Your task to perform on an android device: toggle improve location accuracy Image 0: 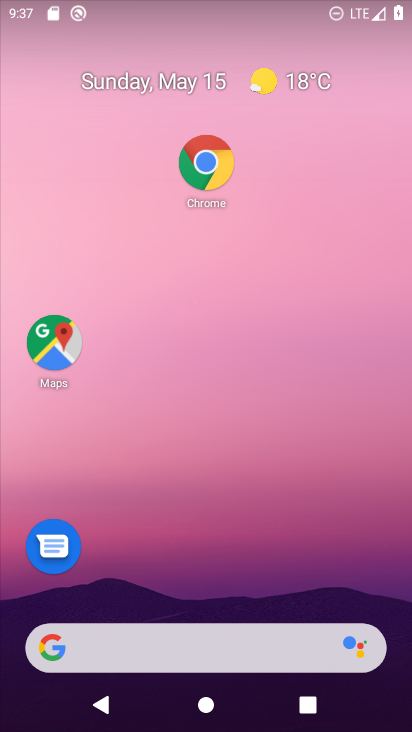
Step 0: drag from (238, 597) to (221, 167)
Your task to perform on an android device: toggle improve location accuracy Image 1: 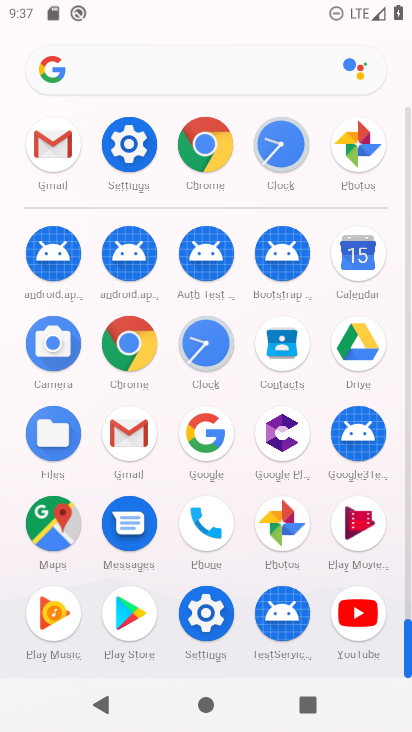
Step 1: click (126, 141)
Your task to perform on an android device: toggle improve location accuracy Image 2: 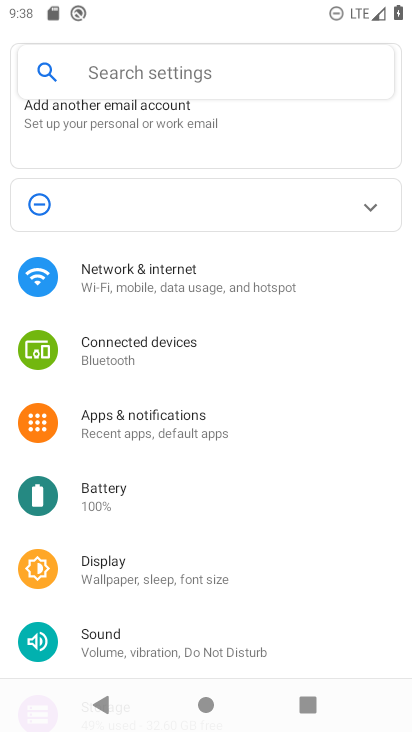
Step 2: drag from (128, 555) to (142, 245)
Your task to perform on an android device: toggle improve location accuracy Image 3: 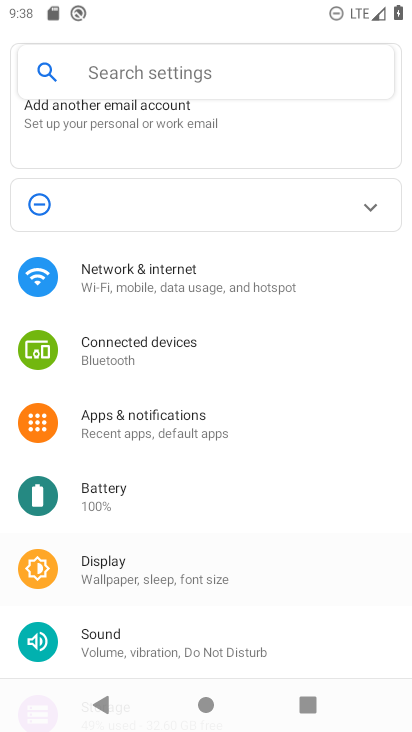
Step 3: drag from (189, 568) to (215, 192)
Your task to perform on an android device: toggle improve location accuracy Image 4: 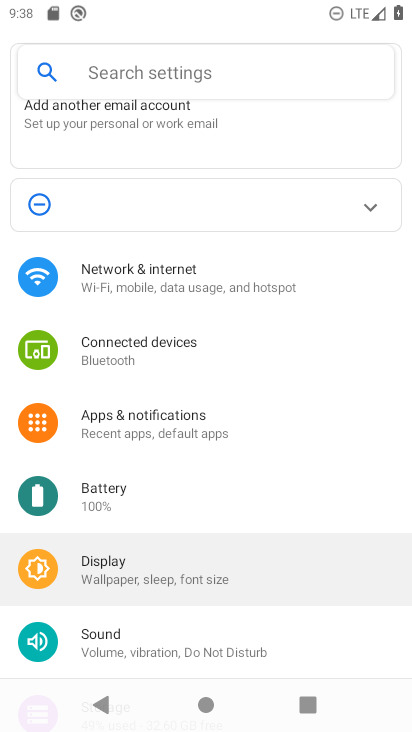
Step 4: drag from (221, 432) to (223, 283)
Your task to perform on an android device: toggle improve location accuracy Image 5: 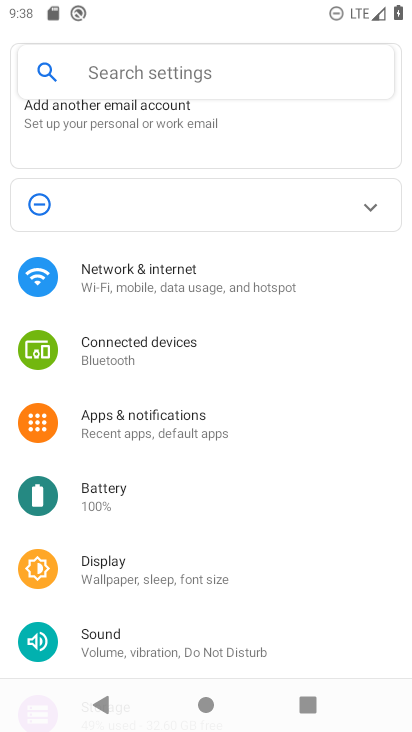
Step 5: drag from (236, 540) to (233, 311)
Your task to perform on an android device: toggle improve location accuracy Image 6: 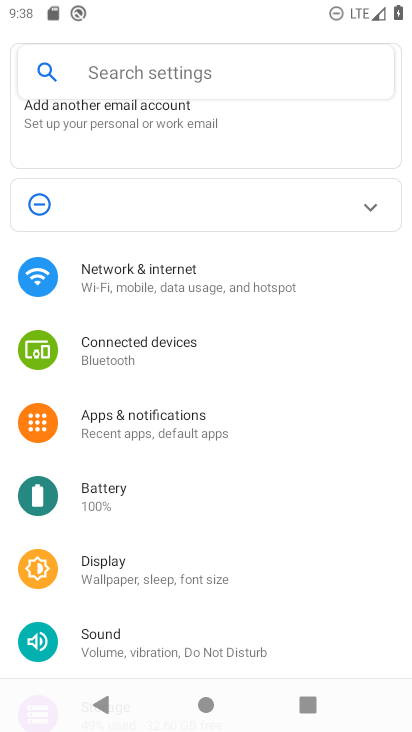
Step 6: drag from (231, 560) to (218, 281)
Your task to perform on an android device: toggle improve location accuracy Image 7: 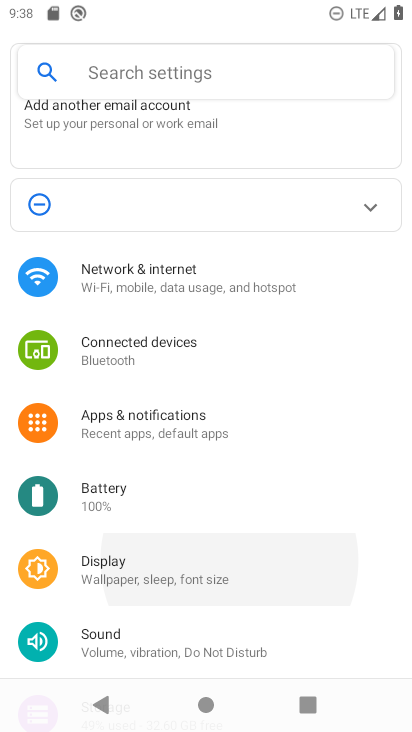
Step 7: drag from (197, 516) to (182, 294)
Your task to perform on an android device: toggle improve location accuracy Image 8: 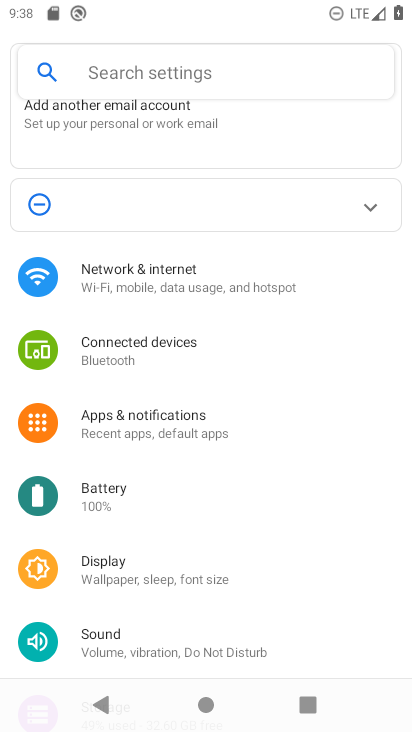
Step 8: drag from (166, 372) to (171, 277)
Your task to perform on an android device: toggle improve location accuracy Image 9: 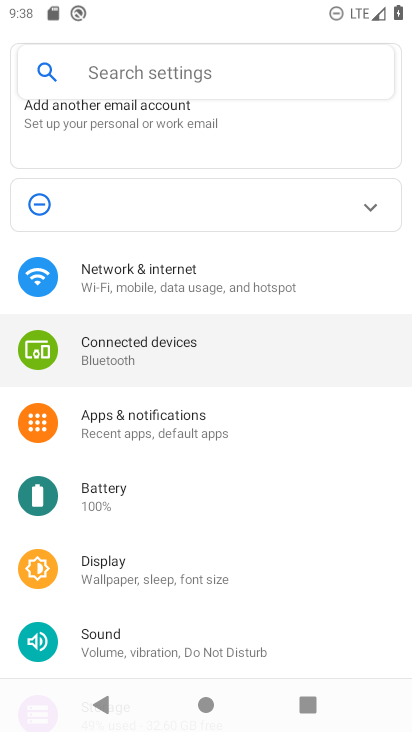
Step 9: drag from (171, 488) to (172, 276)
Your task to perform on an android device: toggle improve location accuracy Image 10: 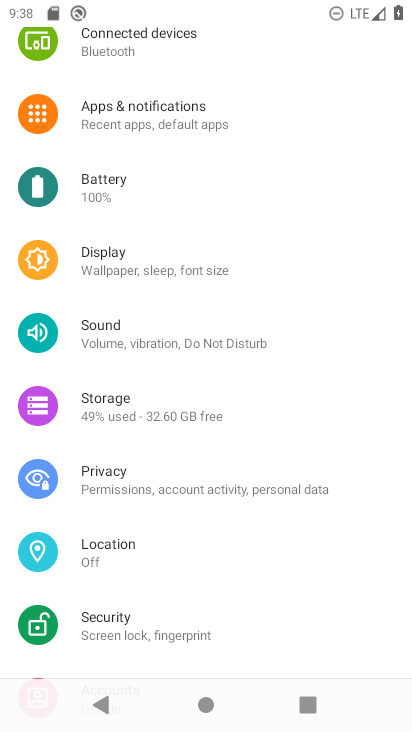
Step 10: drag from (227, 444) to (227, 320)
Your task to perform on an android device: toggle improve location accuracy Image 11: 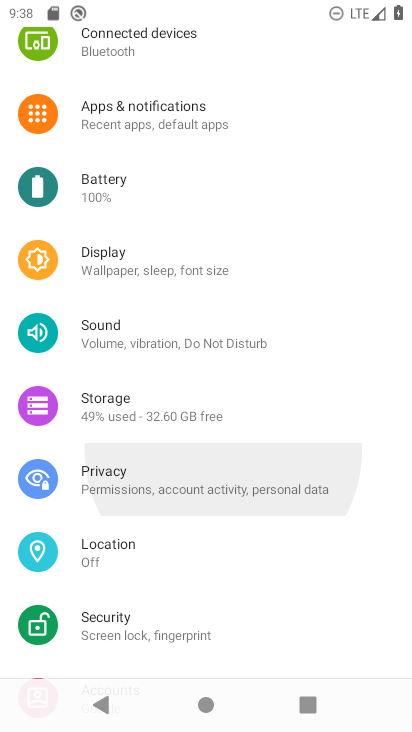
Step 11: drag from (278, 484) to (262, 402)
Your task to perform on an android device: toggle improve location accuracy Image 12: 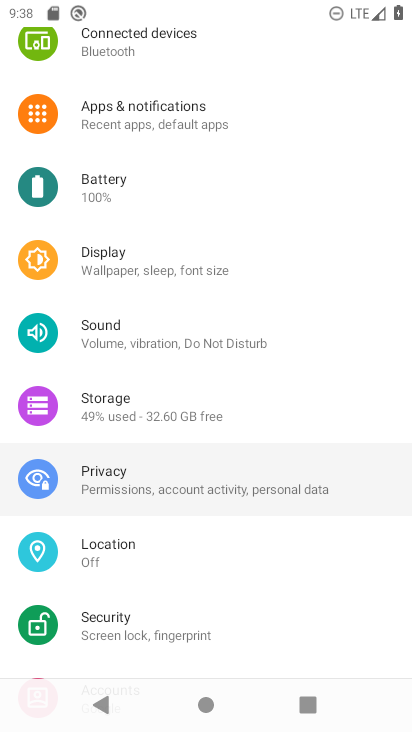
Step 12: drag from (251, 564) to (217, 332)
Your task to perform on an android device: toggle improve location accuracy Image 13: 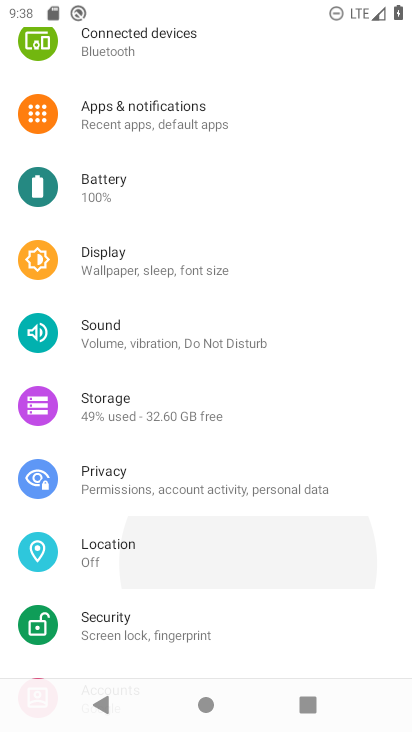
Step 13: drag from (228, 577) to (196, 259)
Your task to perform on an android device: toggle improve location accuracy Image 14: 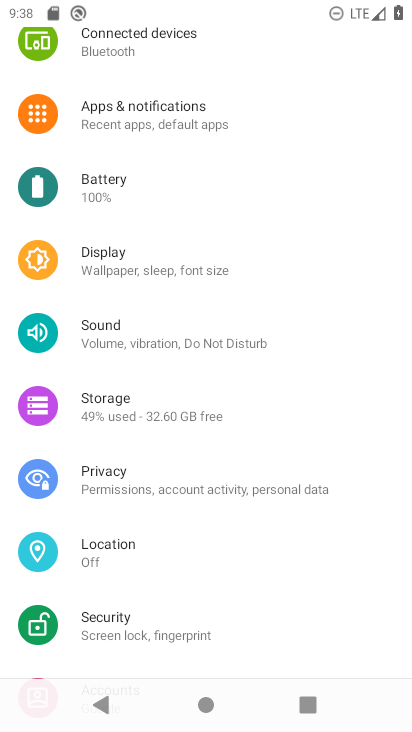
Step 14: click (165, 538)
Your task to perform on an android device: toggle improve location accuracy Image 15: 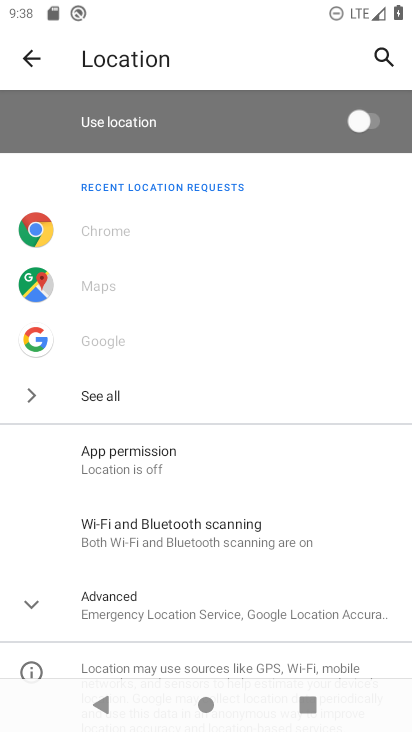
Step 15: click (164, 614)
Your task to perform on an android device: toggle improve location accuracy Image 16: 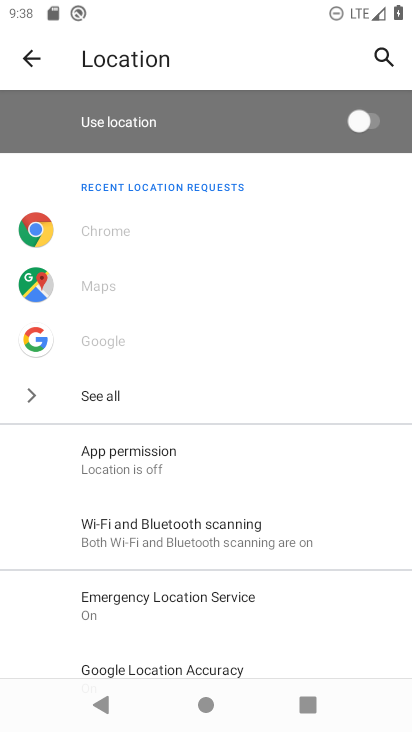
Step 16: drag from (204, 640) to (258, 209)
Your task to perform on an android device: toggle improve location accuracy Image 17: 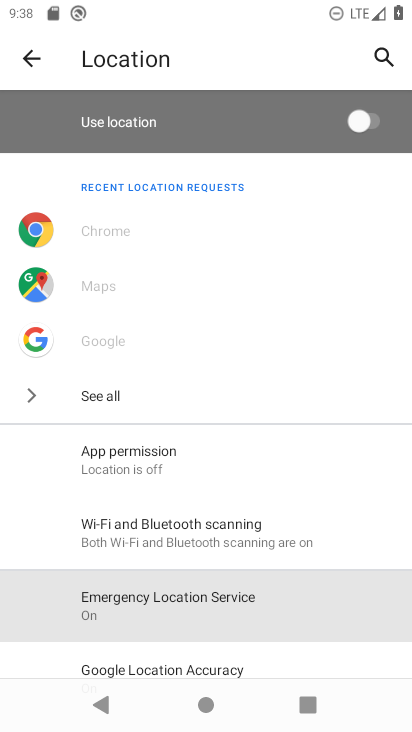
Step 17: drag from (272, 607) to (279, 455)
Your task to perform on an android device: toggle improve location accuracy Image 18: 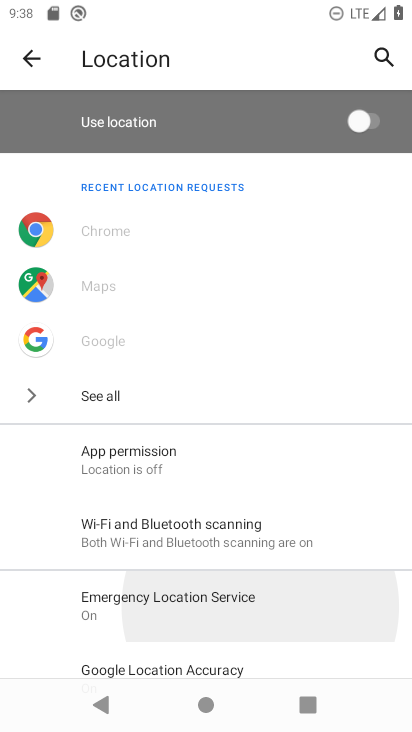
Step 18: drag from (260, 526) to (282, 404)
Your task to perform on an android device: toggle improve location accuracy Image 19: 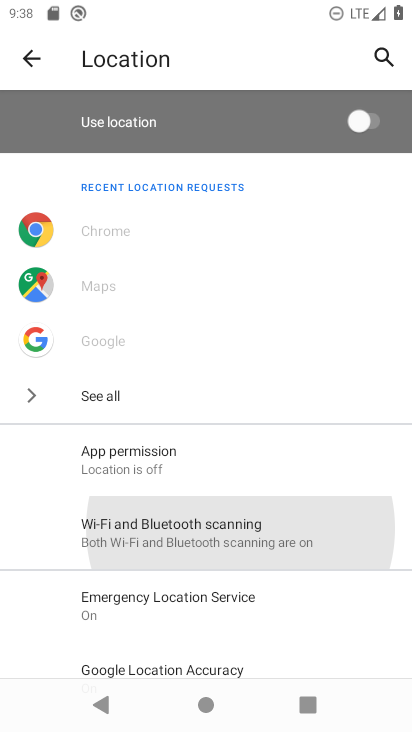
Step 19: drag from (299, 405) to (289, 240)
Your task to perform on an android device: toggle improve location accuracy Image 20: 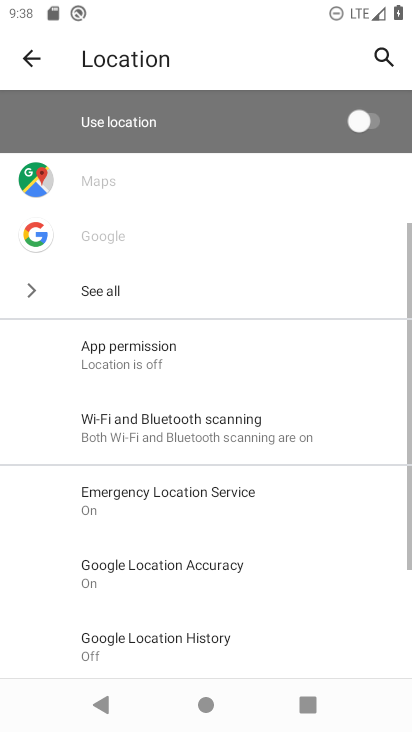
Step 20: drag from (327, 397) to (323, 276)
Your task to perform on an android device: toggle improve location accuracy Image 21: 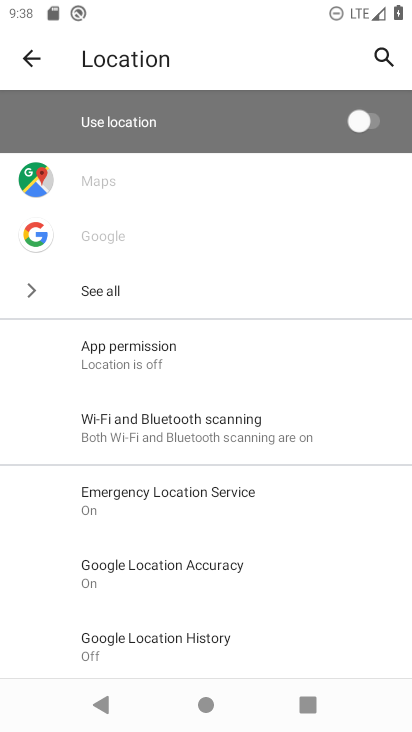
Step 21: click (212, 567)
Your task to perform on an android device: toggle improve location accuracy Image 22: 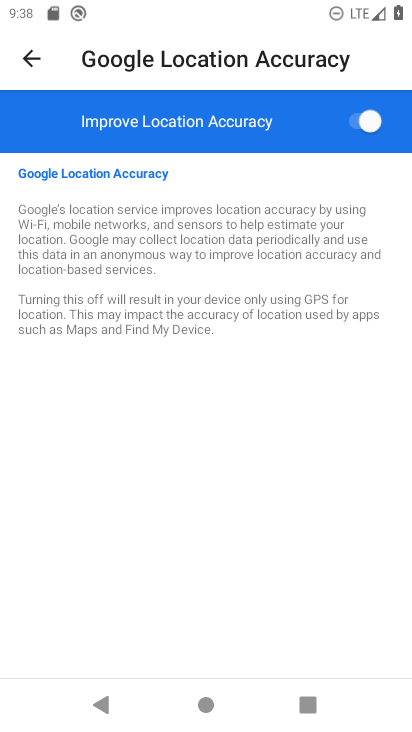
Step 22: click (363, 118)
Your task to perform on an android device: toggle improve location accuracy Image 23: 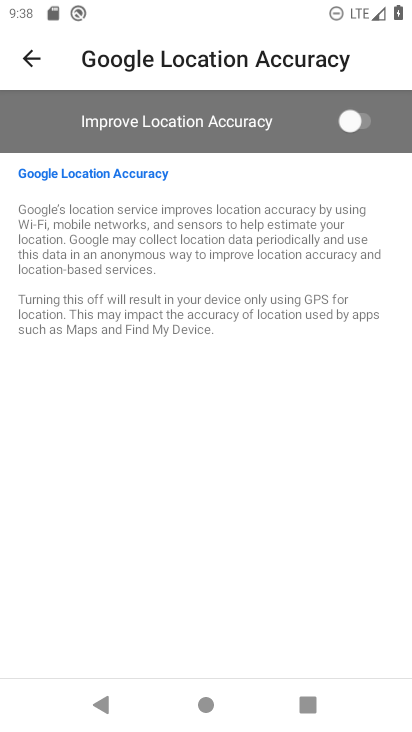
Step 23: task complete